Your task to perform on an android device: Search for Mexican restaurants on Maps Image 0: 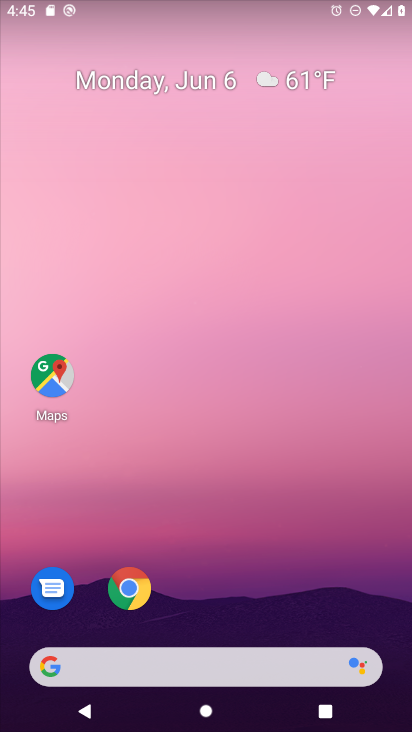
Step 0: click (57, 382)
Your task to perform on an android device: Search for Mexican restaurants on Maps Image 1: 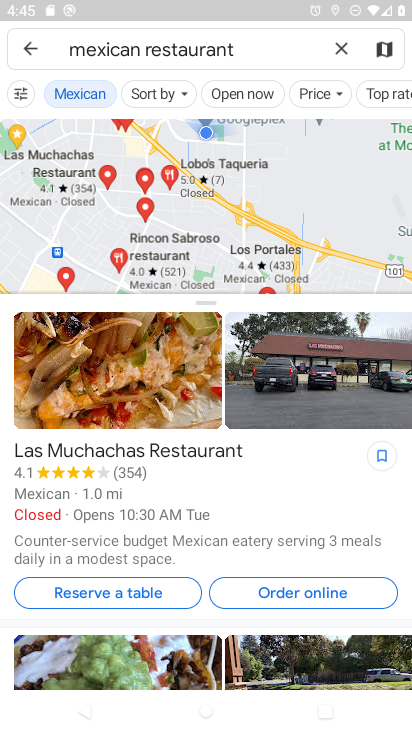
Step 1: task complete